Your task to perform on an android device: Search for seafood restaurants on Google Maps Image 0: 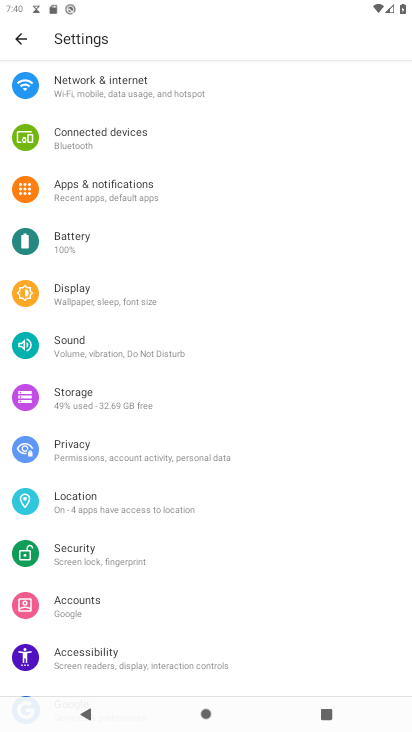
Step 0: drag from (122, 523) to (87, 148)
Your task to perform on an android device: Search for seafood restaurants on Google Maps Image 1: 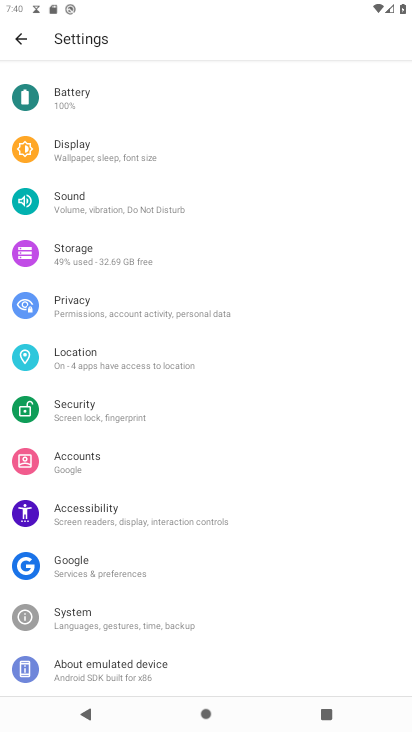
Step 1: press home button
Your task to perform on an android device: Search for seafood restaurants on Google Maps Image 2: 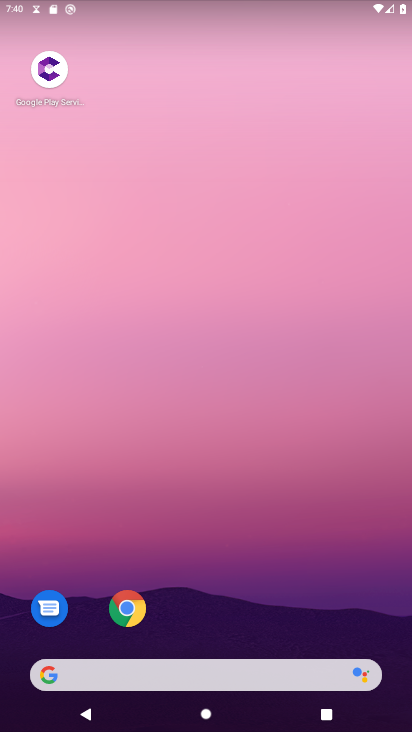
Step 2: drag from (40, 323) to (397, 546)
Your task to perform on an android device: Search for seafood restaurants on Google Maps Image 3: 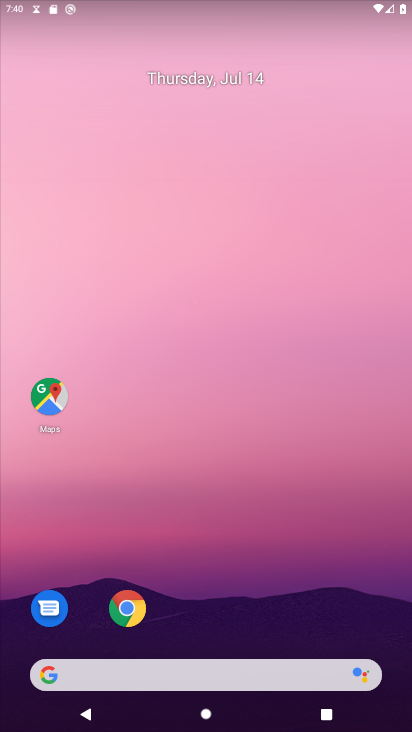
Step 3: click (59, 391)
Your task to perform on an android device: Search for seafood restaurants on Google Maps Image 4: 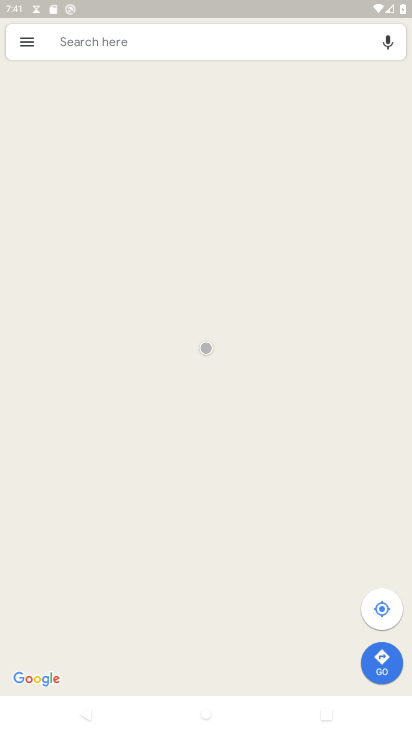
Step 4: click (194, 29)
Your task to perform on an android device: Search for seafood restaurants on Google Maps Image 5: 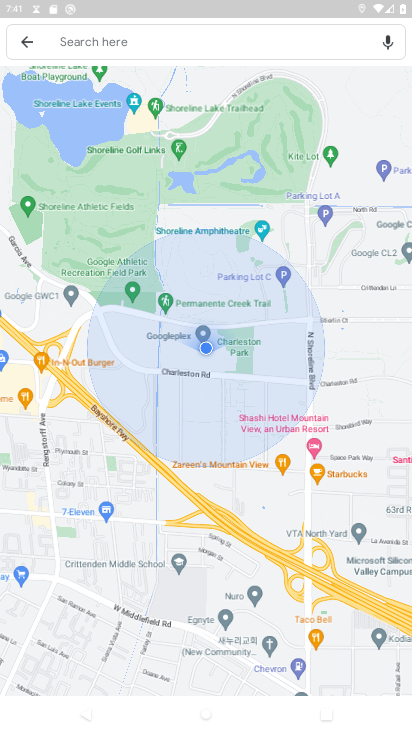
Step 5: click (112, 35)
Your task to perform on an android device: Search for seafood restaurants on Google Maps Image 6: 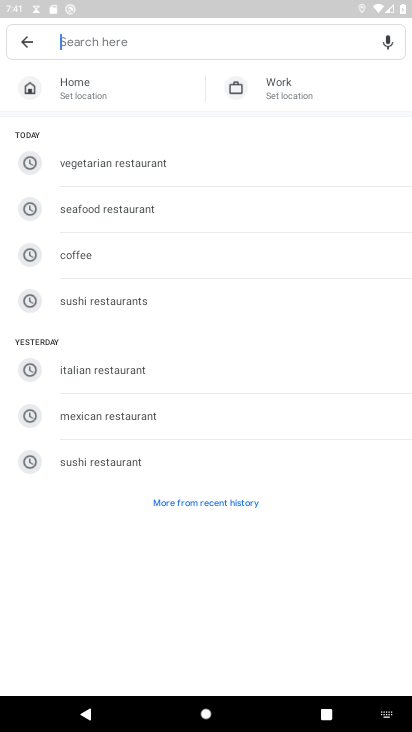
Step 6: click (113, 213)
Your task to perform on an android device: Search for seafood restaurants on Google Maps Image 7: 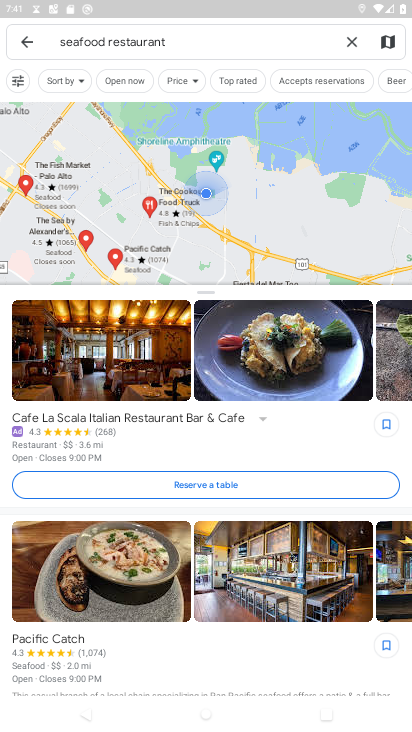
Step 7: task complete